Your task to perform on an android device: turn off javascript in the chrome app Image 0: 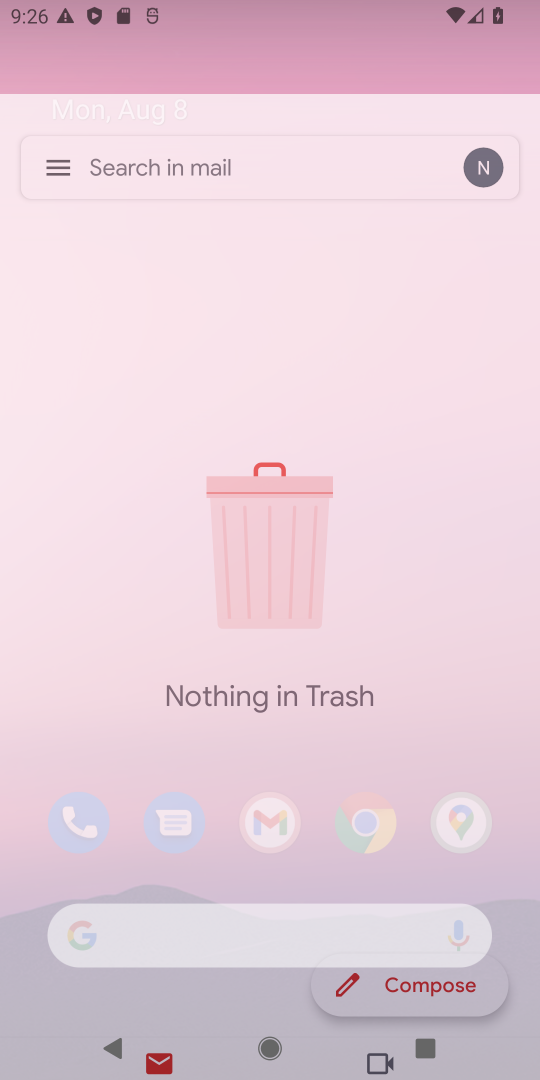
Step 0: press home button
Your task to perform on an android device: turn off javascript in the chrome app Image 1: 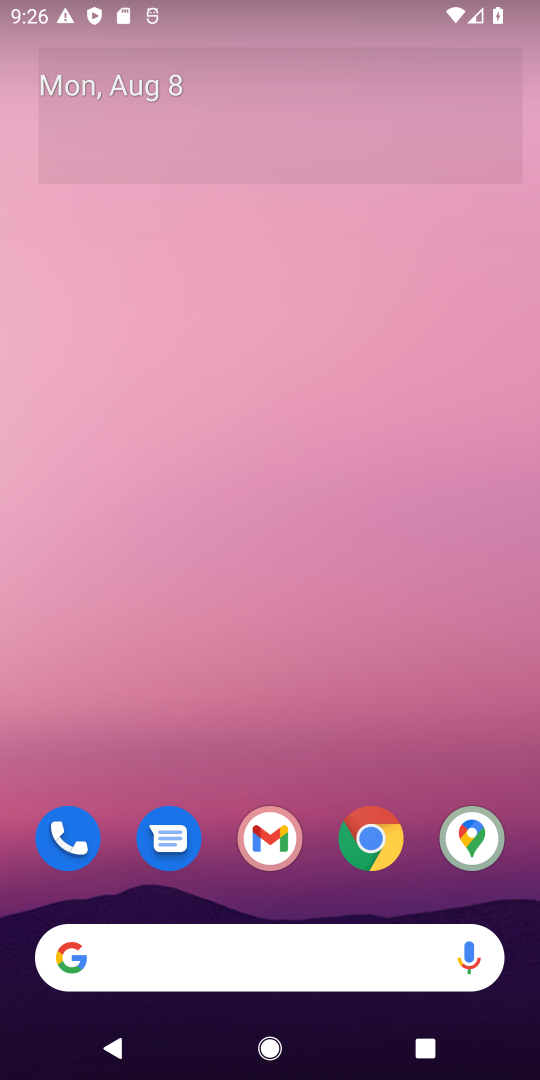
Step 1: drag from (325, 858) to (387, 351)
Your task to perform on an android device: turn off javascript in the chrome app Image 2: 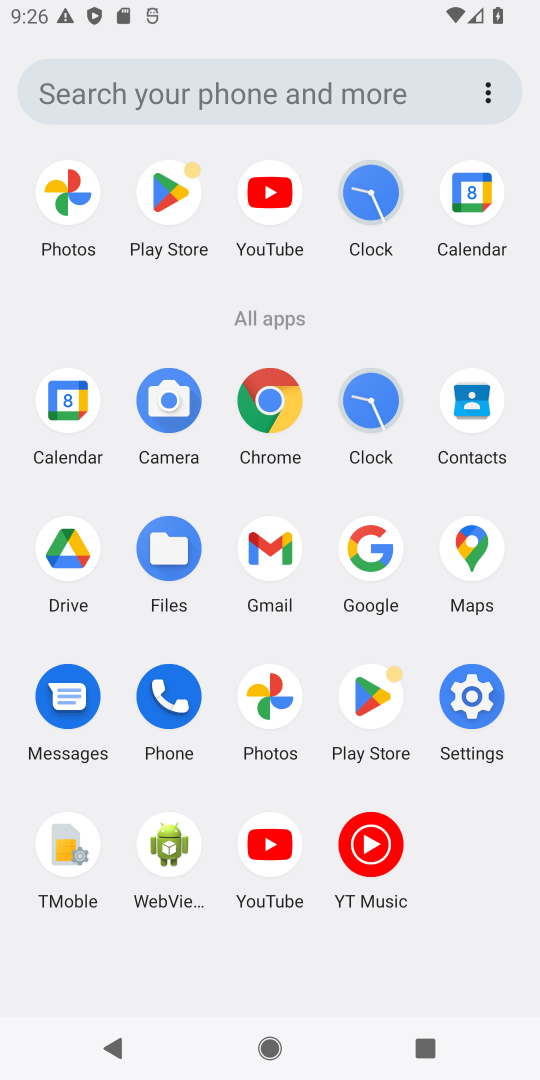
Step 2: click (270, 417)
Your task to perform on an android device: turn off javascript in the chrome app Image 3: 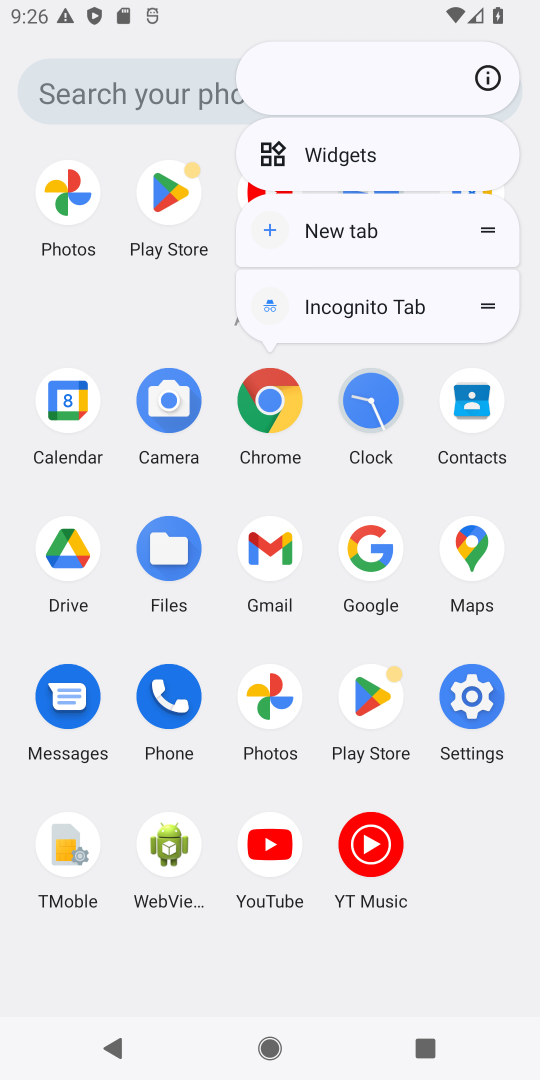
Step 3: click (270, 417)
Your task to perform on an android device: turn off javascript in the chrome app Image 4: 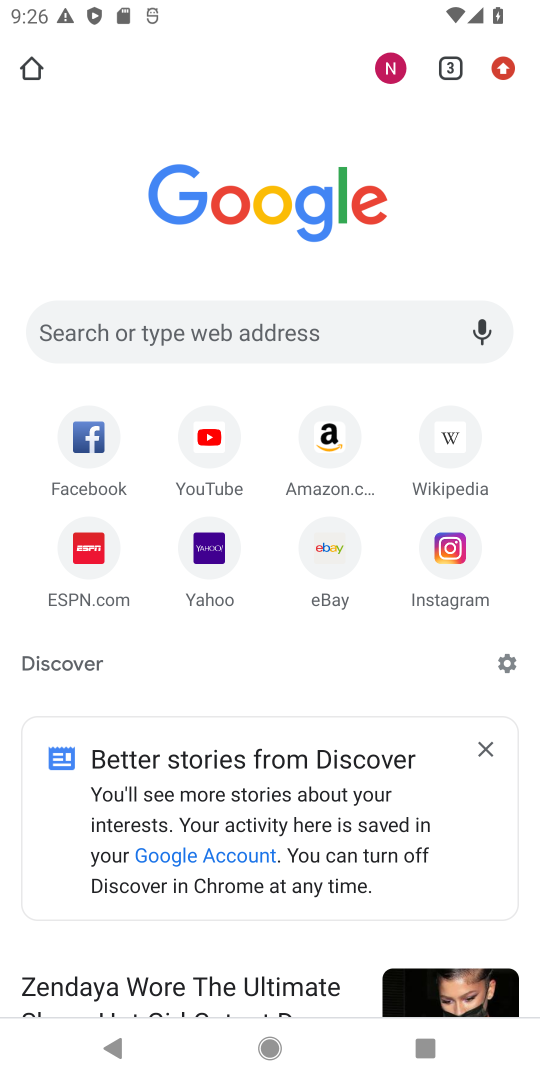
Step 4: drag from (504, 63) to (302, 712)
Your task to perform on an android device: turn off javascript in the chrome app Image 5: 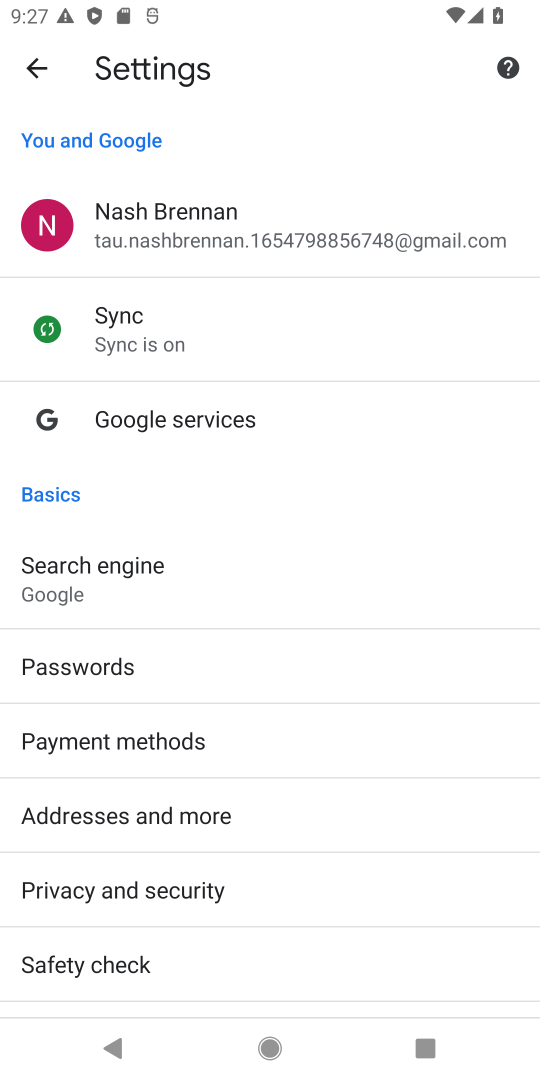
Step 5: drag from (310, 978) to (342, 416)
Your task to perform on an android device: turn off javascript in the chrome app Image 6: 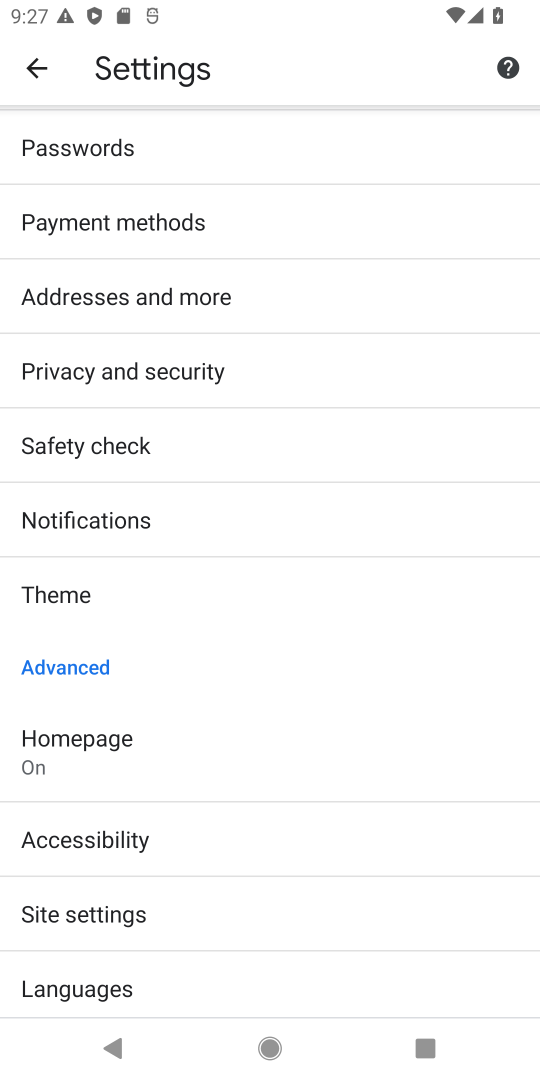
Step 6: click (60, 912)
Your task to perform on an android device: turn off javascript in the chrome app Image 7: 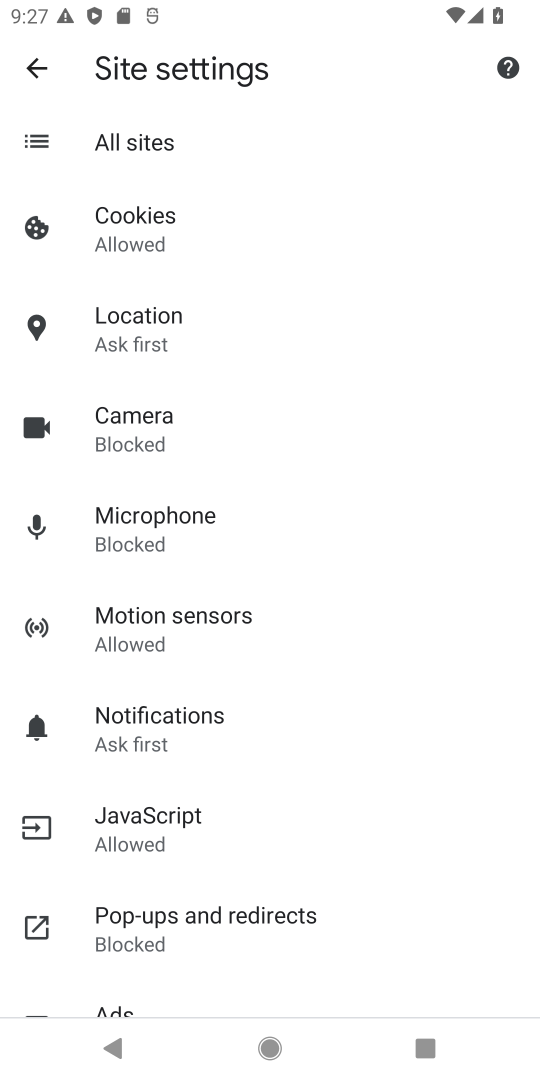
Step 7: click (148, 826)
Your task to perform on an android device: turn off javascript in the chrome app Image 8: 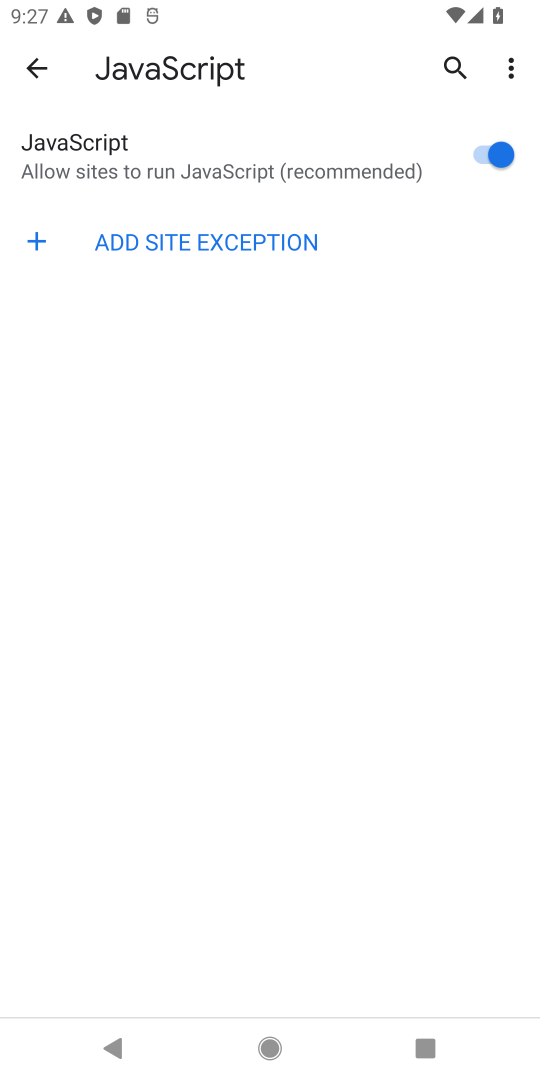
Step 8: click (501, 137)
Your task to perform on an android device: turn off javascript in the chrome app Image 9: 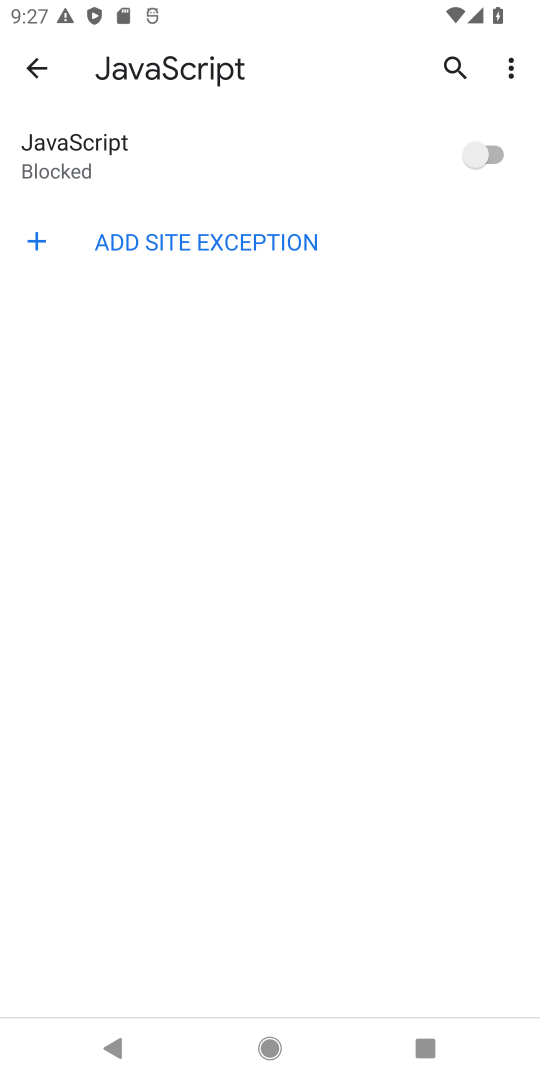
Step 9: task complete